Your task to perform on an android device: Do I have any events today? Image 0: 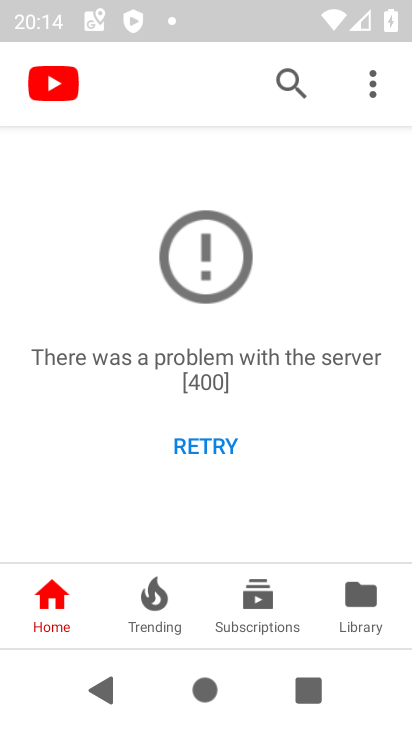
Step 0: press back button
Your task to perform on an android device: Do I have any events today? Image 1: 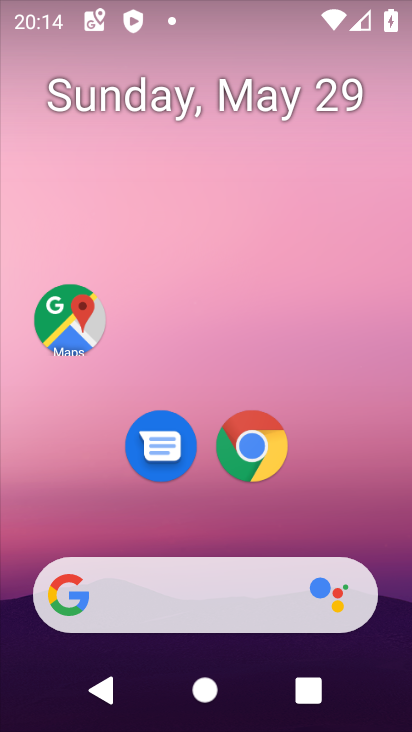
Step 1: drag from (232, 584) to (247, 35)
Your task to perform on an android device: Do I have any events today? Image 2: 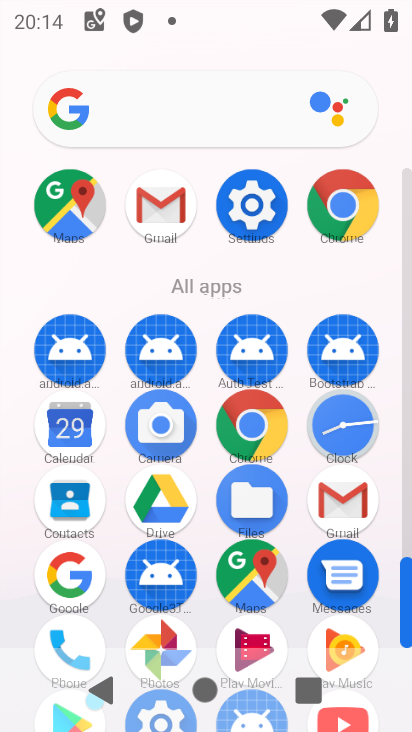
Step 2: click (63, 422)
Your task to perform on an android device: Do I have any events today? Image 3: 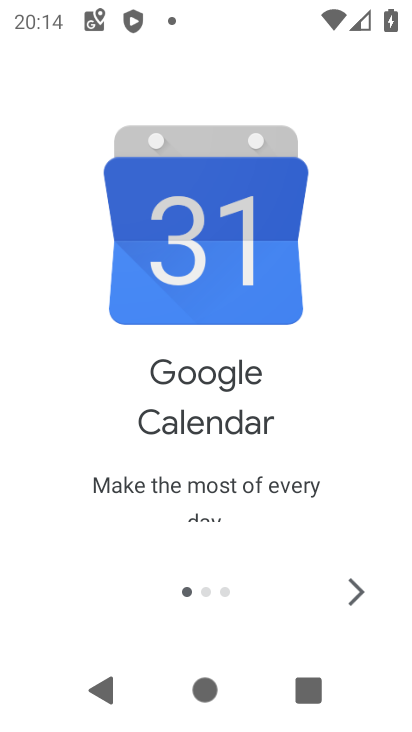
Step 3: click (345, 589)
Your task to perform on an android device: Do I have any events today? Image 4: 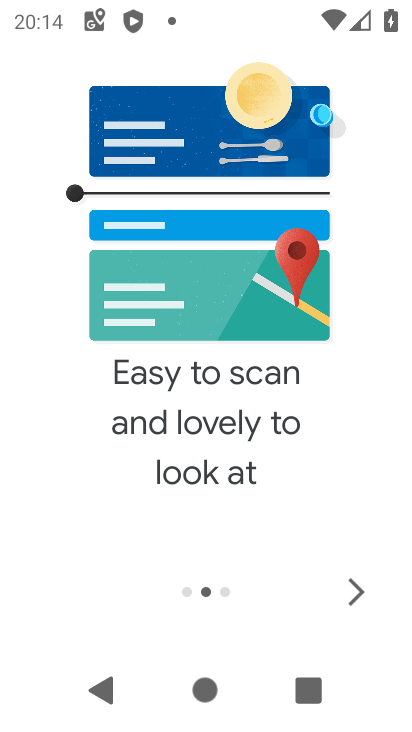
Step 4: click (345, 589)
Your task to perform on an android device: Do I have any events today? Image 5: 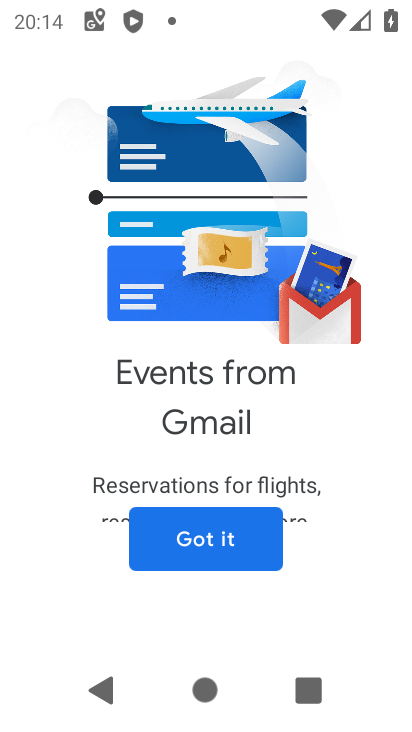
Step 5: click (260, 560)
Your task to perform on an android device: Do I have any events today? Image 6: 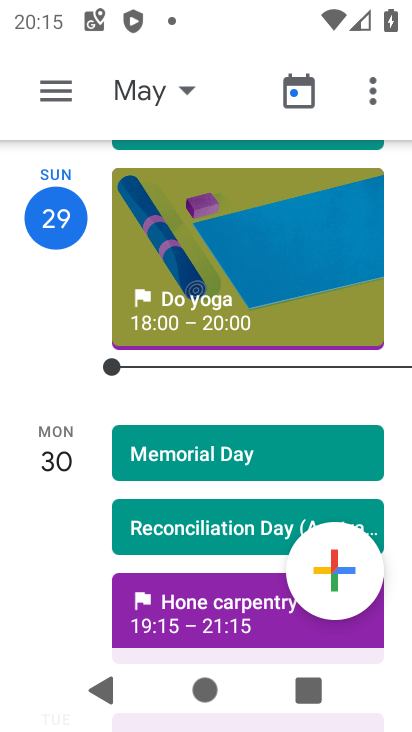
Step 6: task complete